Your task to perform on an android device: Open my contact list Image 0: 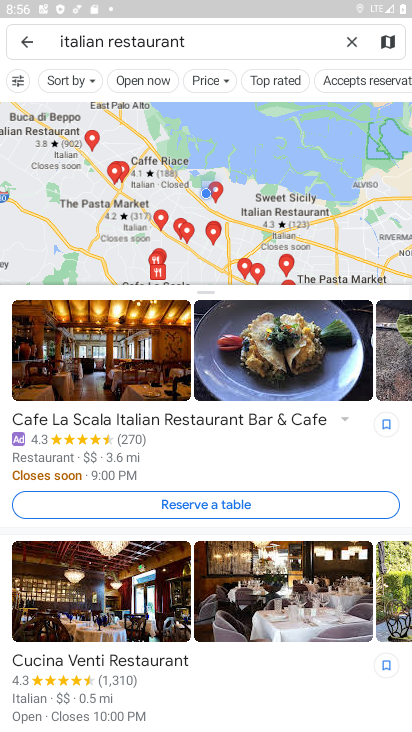
Step 0: press home button
Your task to perform on an android device: Open my contact list Image 1: 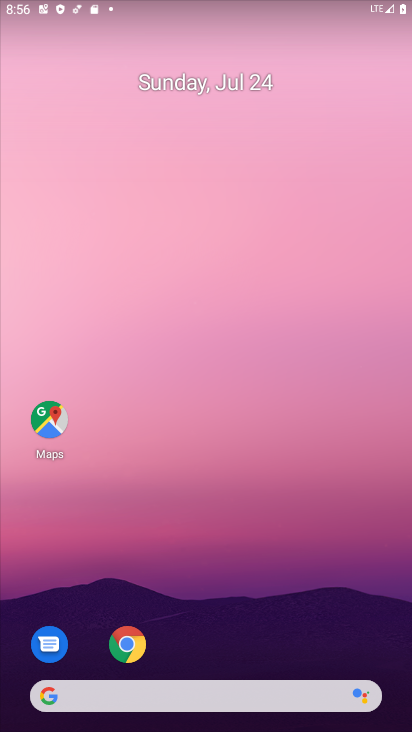
Step 1: drag from (53, 533) to (319, 84)
Your task to perform on an android device: Open my contact list Image 2: 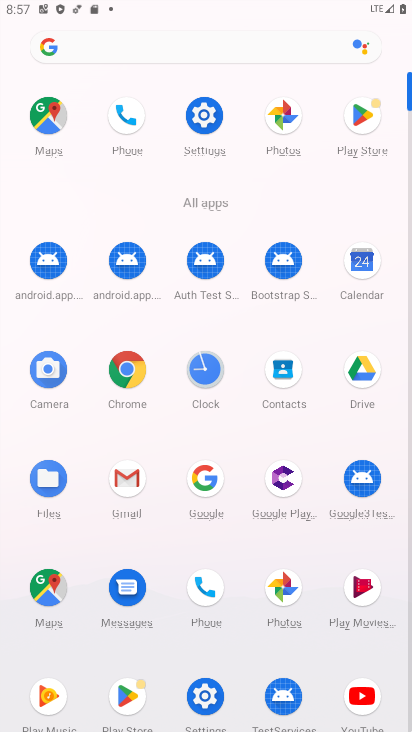
Step 2: click (219, 586)
Your task to perform on an android device: Open my contact list Image 3: 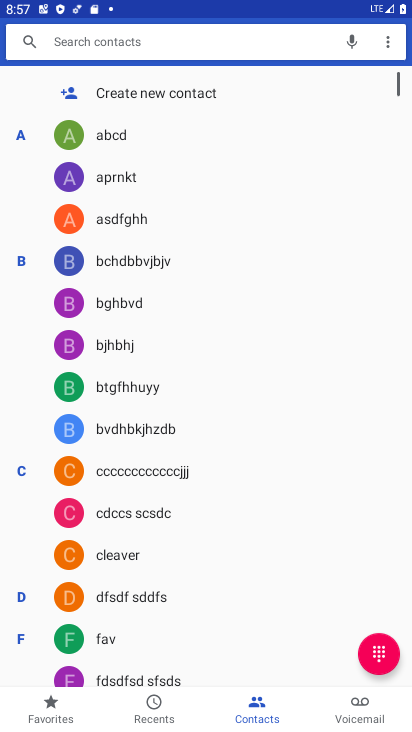
Step 3: task complete